Your task to perform on an android device: change notification settings in the gmail app Image 0: 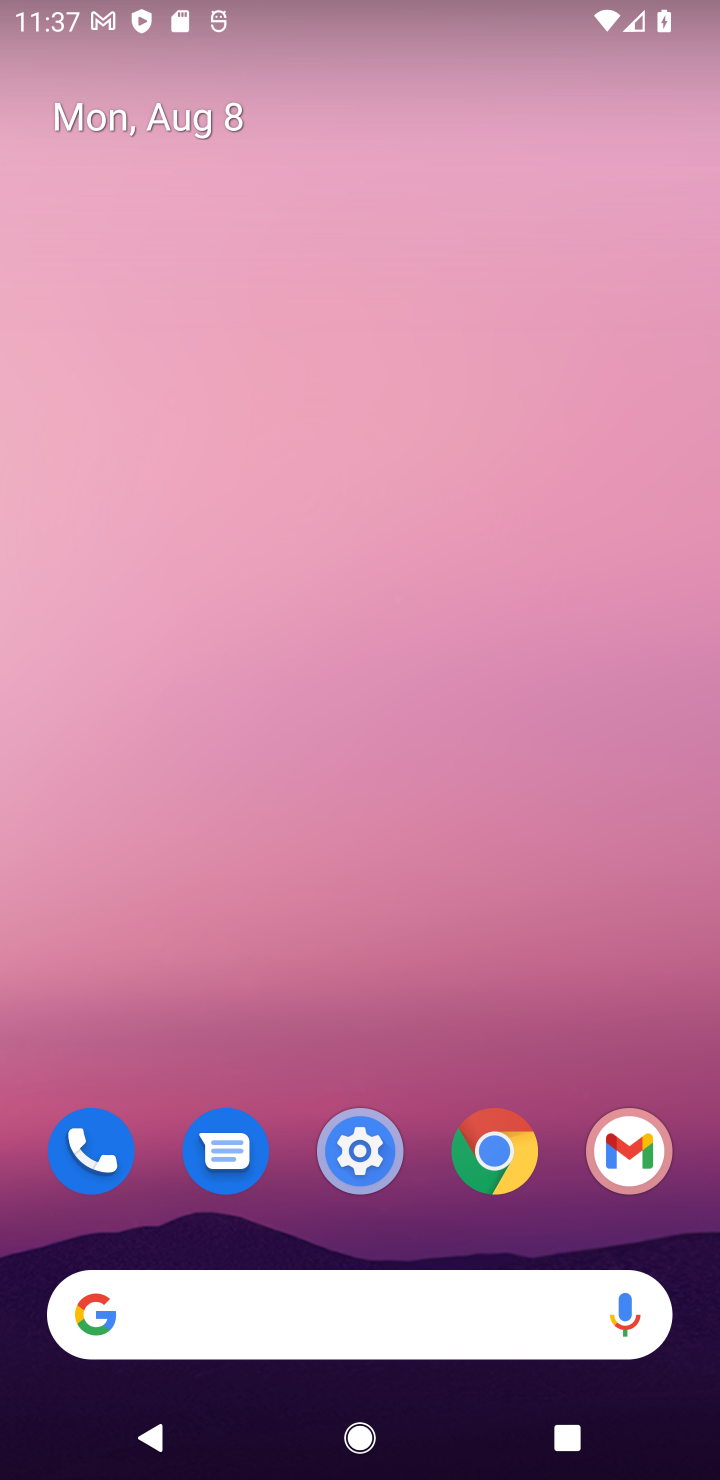
Step 0: click (639, 1169)
Your task to perform on an android device: change notification settings in the gmail app Image 1: 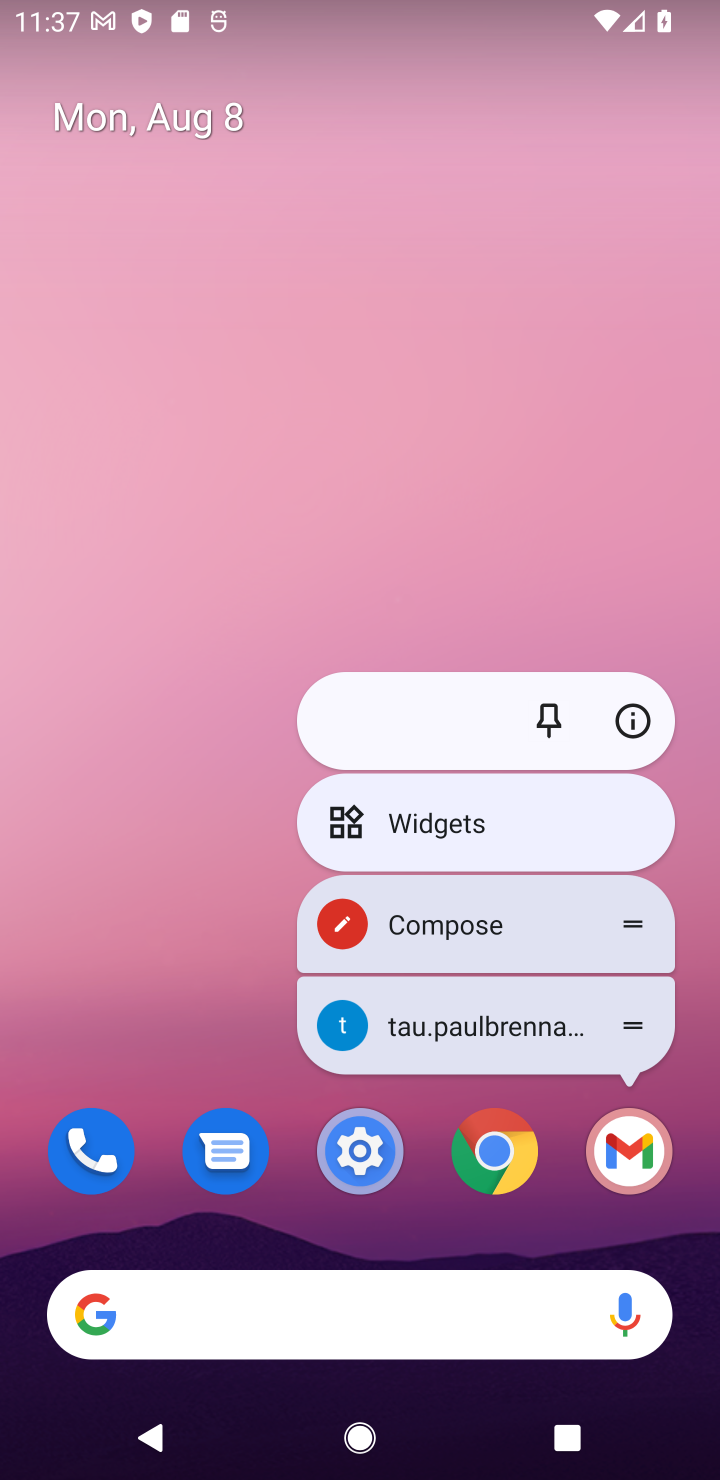
Step 1: click (630, 1160)
Your task to perform on an android device: change notification settings in the gmail app Image 2: 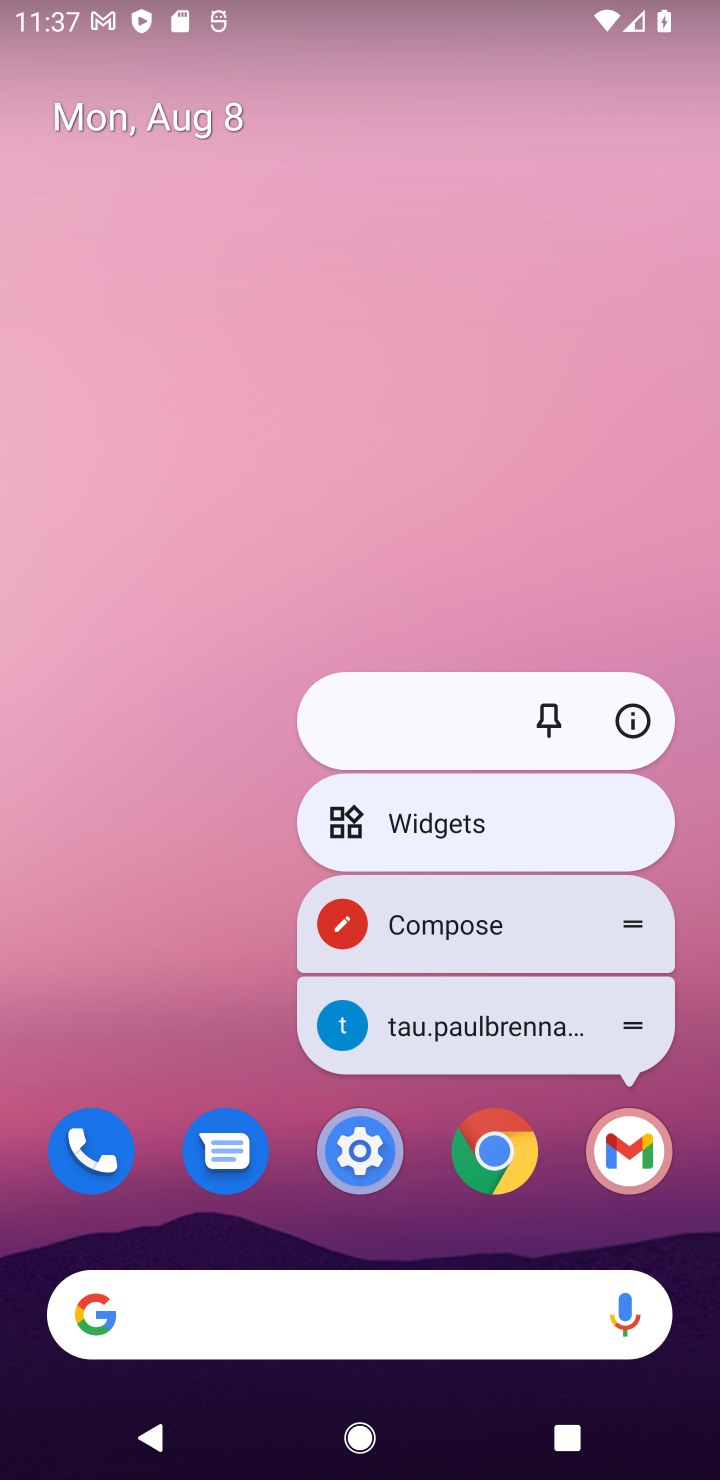
Step 2: click (622, 1153)
Your task to perform on an android device: change notification settings in the gmail app Image 3: 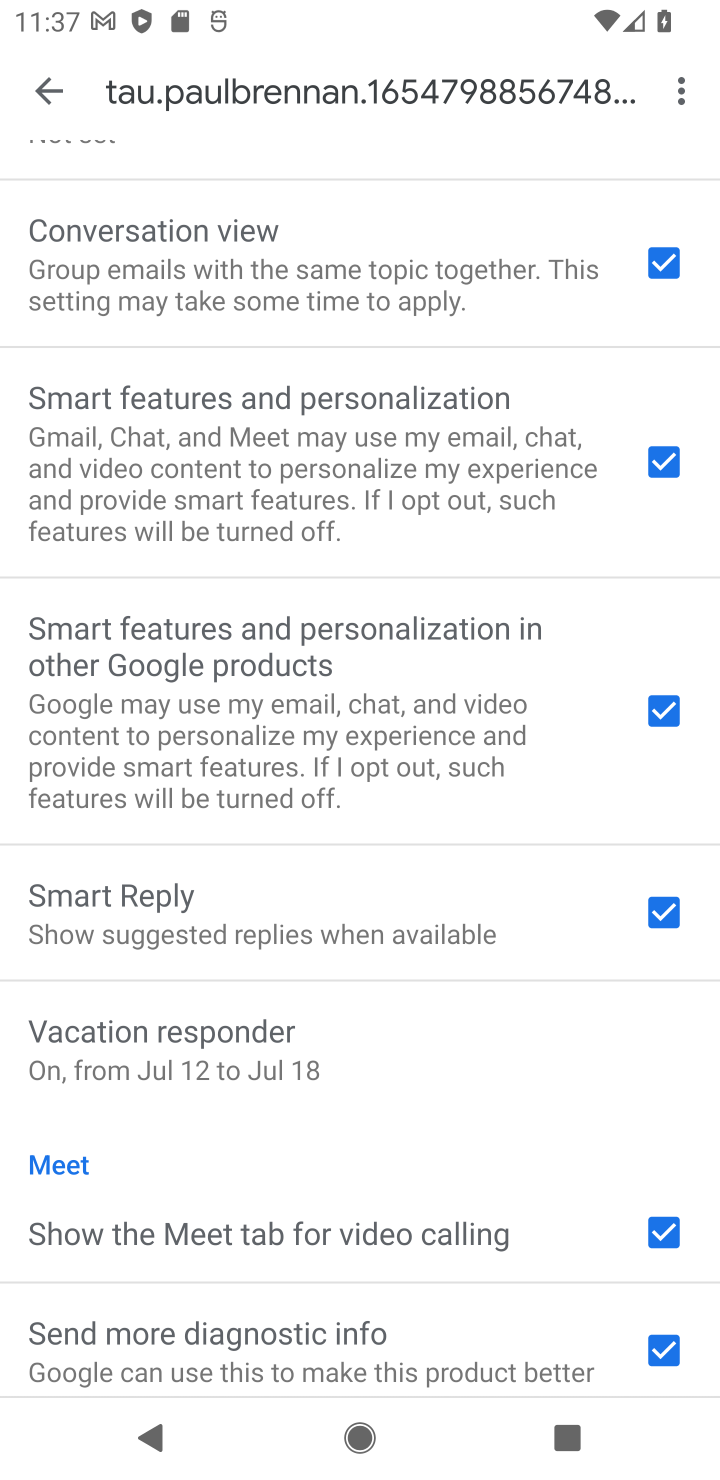
Step 3: drag from (134, 264) to (268, 952)
Your task to perform on an android device: change notification settings in the gmail app Image 4: 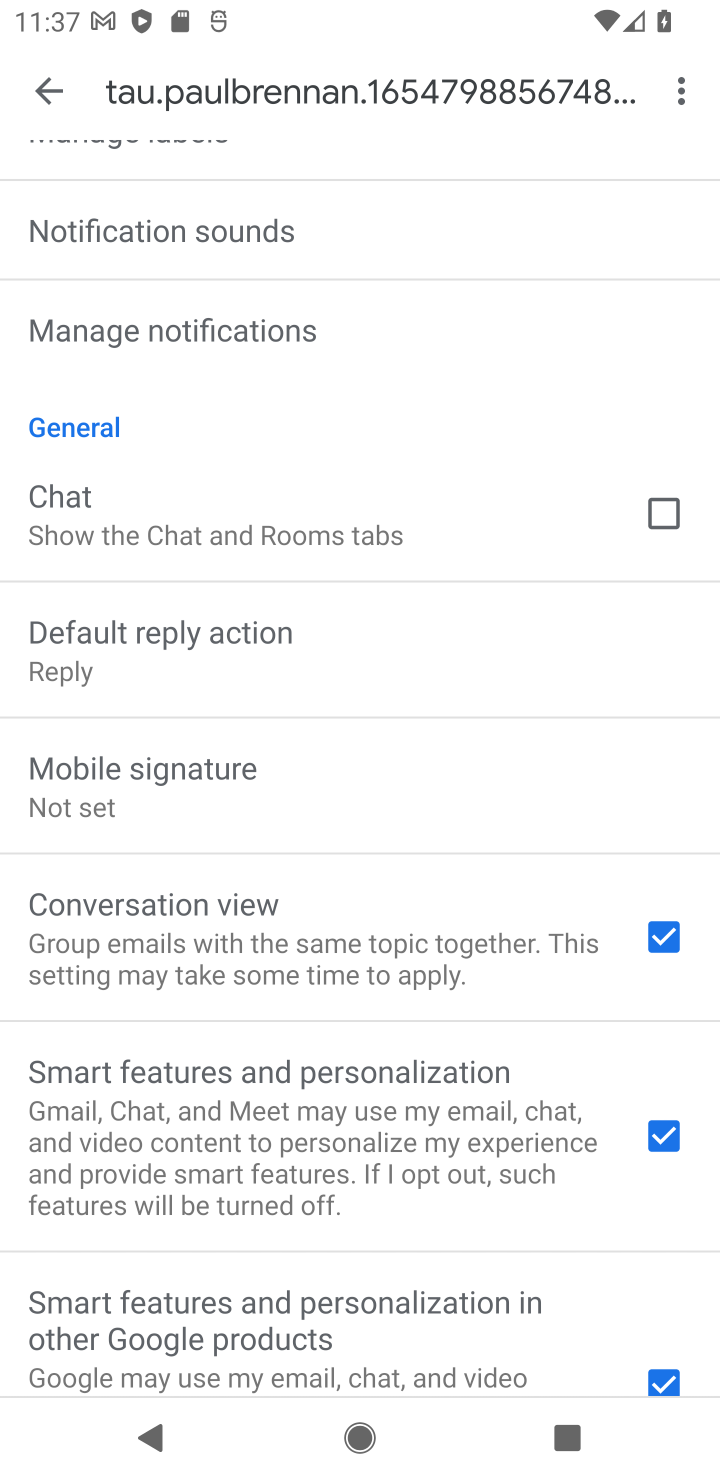
Step 4: drag from (183, 264) to (318, 934)
Your task to perform on an android device: change notification settings in the gmail app Image 5: 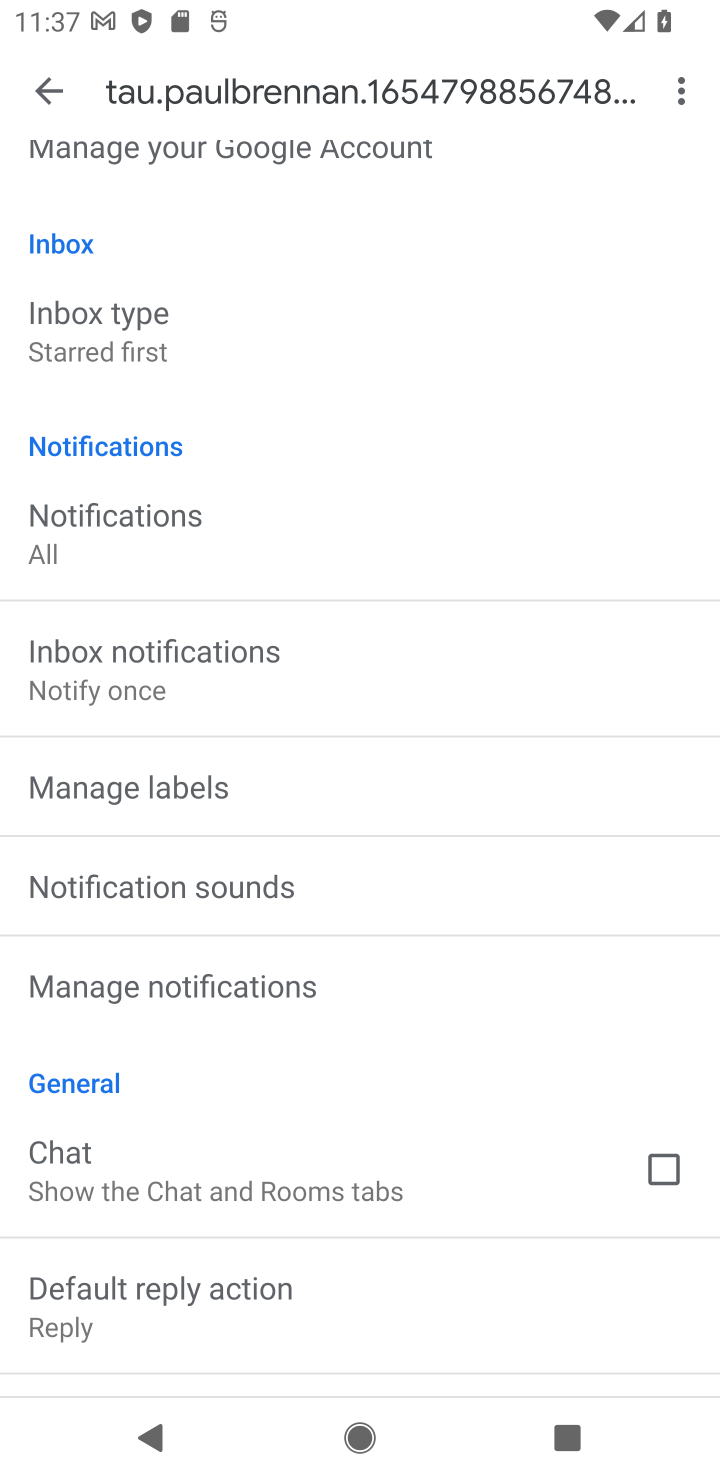
Step 5: click (221, 986)
Your task to perform on an android device: change notification settings in the gmail app Image 6: 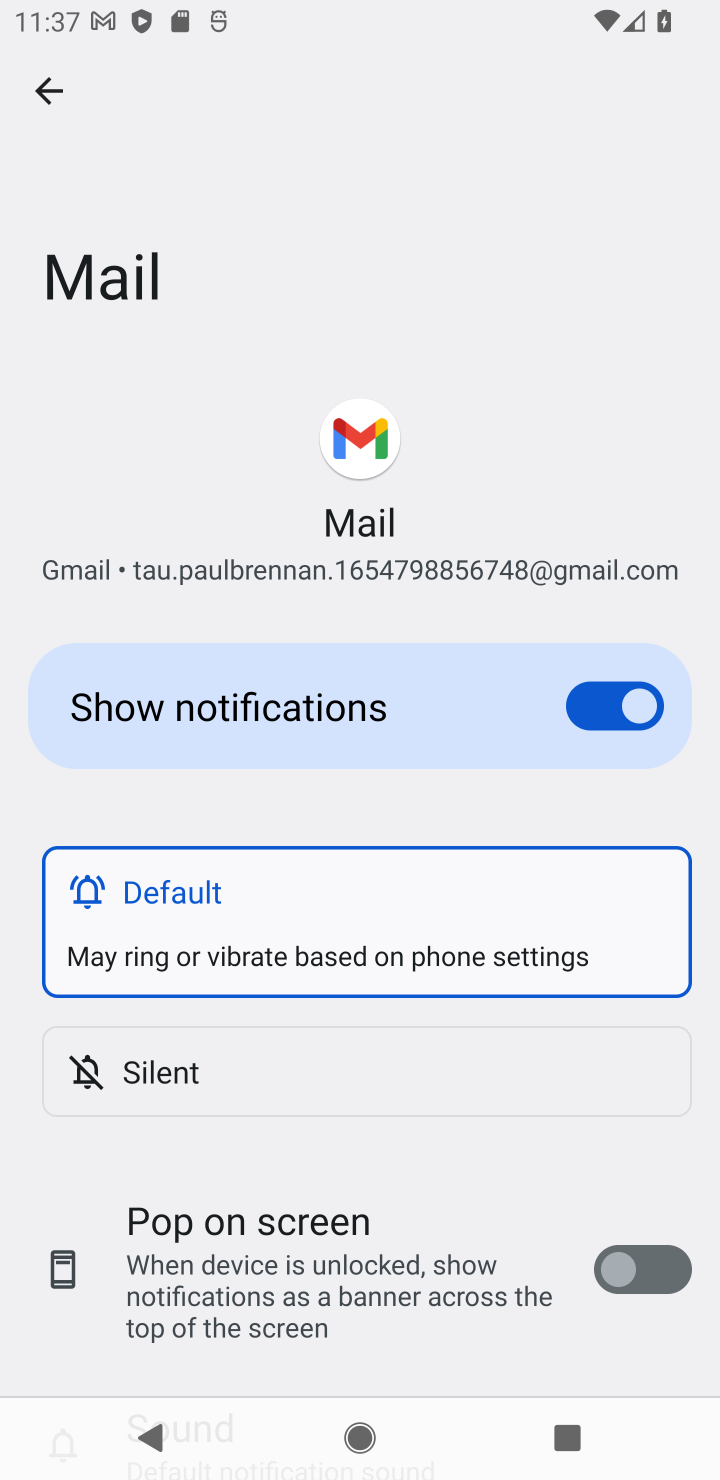
Step 6: click (595, 700)
Your task to perform on an android device: change notification settings in the gmail app Image 7: 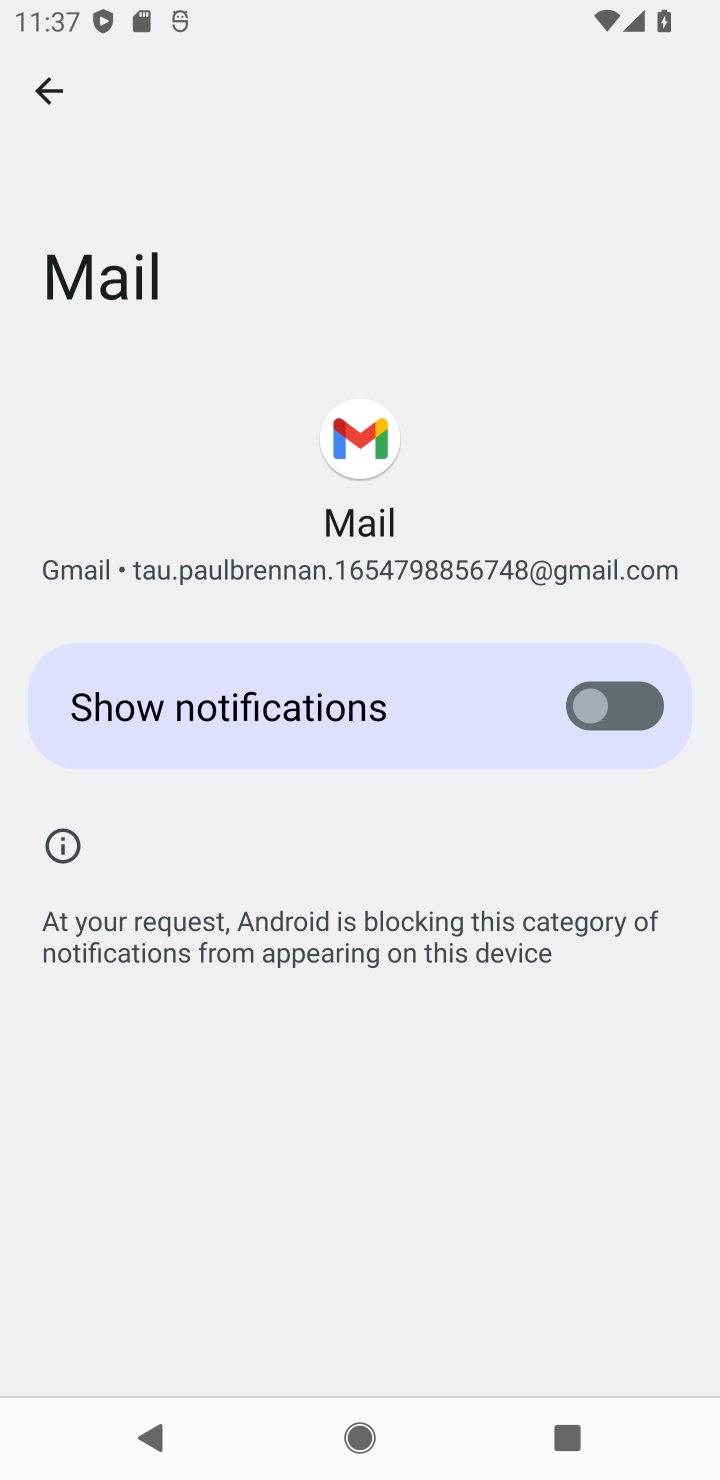
Step 7: task complete